Your task to perform on an android device: open device folders in google photos Image 0: 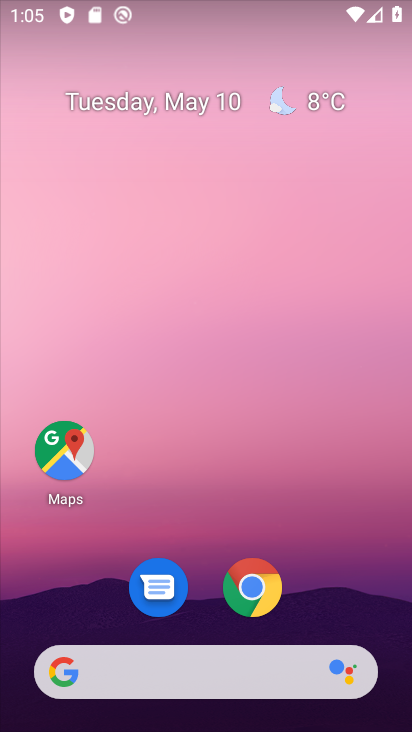
Step 0: drag from (331, 552) to (267, 95)
Your task to perform on an android device: open device folders in google photos Image 1: 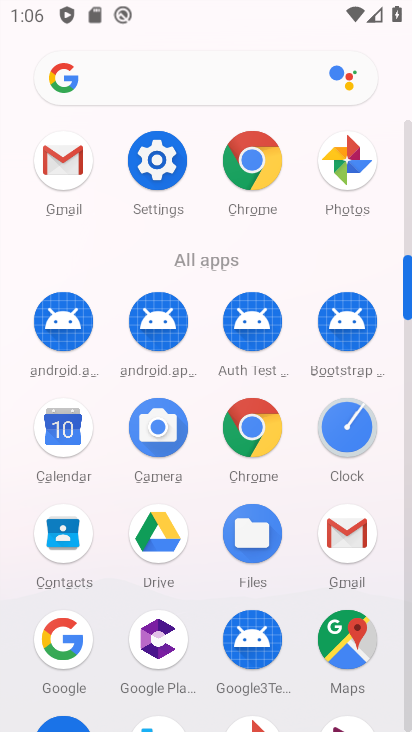
Step 1: click (354, 152)
Your task to perform on an android device: open device folders in google photos Image 2: 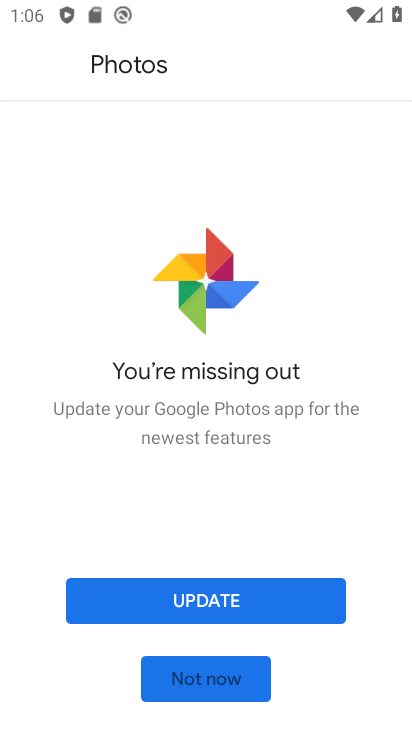
Step 2: click (217, 681)
Your task to perform on an android device: open device folders in google photos Image 3: 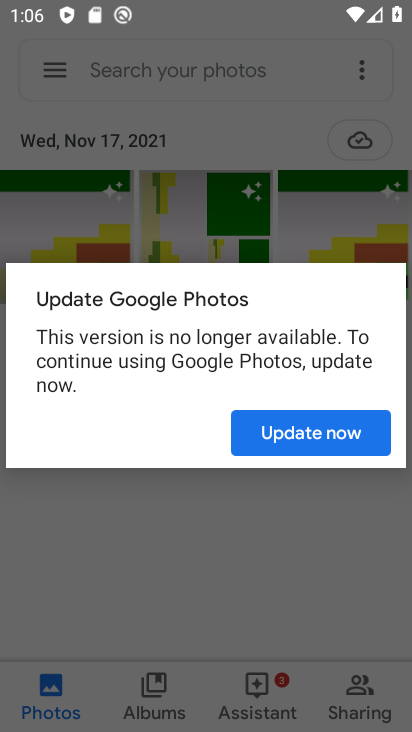
Step 3: click (295, 496)
Your task to perform on an android device: open device folders in google photos Image 4: 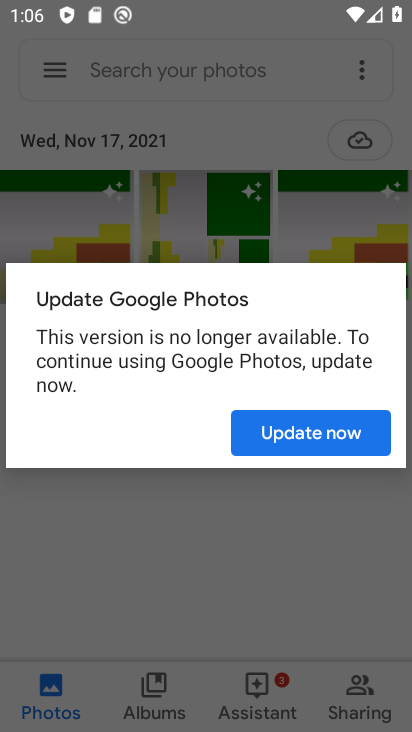
Step 4: click (232, 516)
Your task to perform on an android device: open device folders in google photos Image 5: 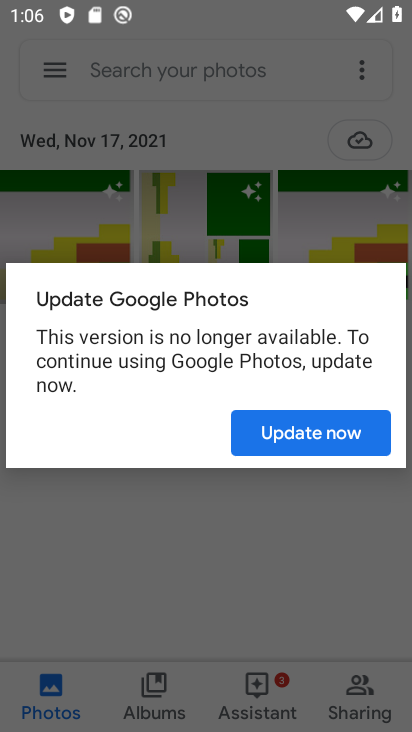
Step 5: click (273, 417)
Your task to perform on an android device: open device folders in google photos Image 6: 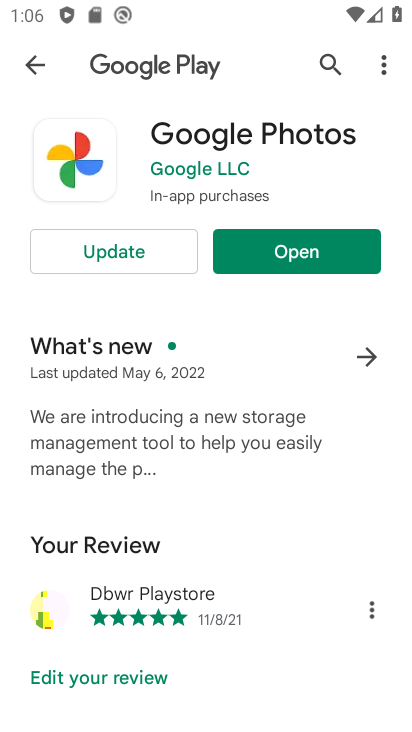
Step 6: click (302, 254)
Your task to perform on an android device: open device folders in google photos Image 7: 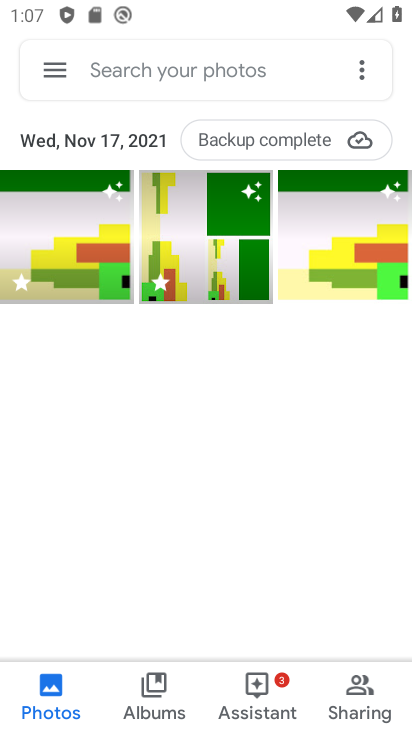
Step 7: click (58, 71)
Your task to perform on an android device: open device folders in google photos Image 8: 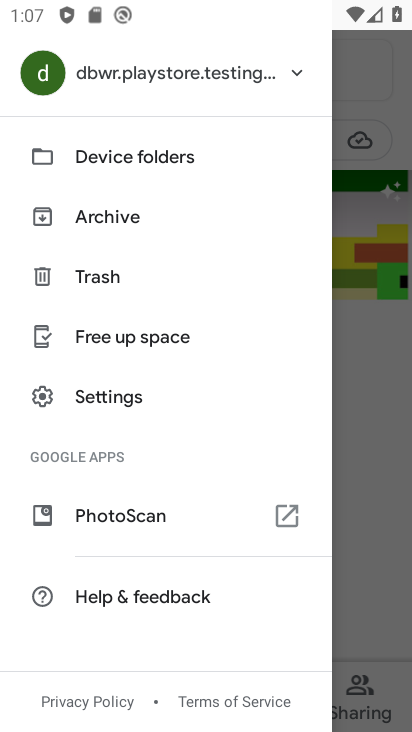
Step 8: click (148, 151)
Your task to perform on an android device: open device folders in google photos Image 9: 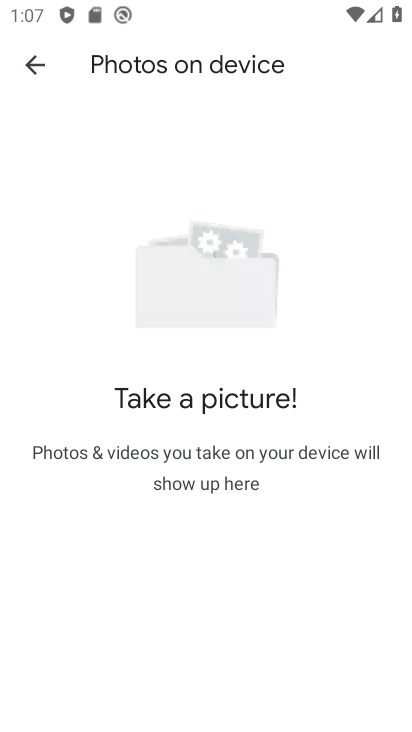
Step 9: task complete